Your task to perform on an android device: open app "Adobe Acrobat Reader: Edit PDF" (install if not already installed) and go to login screen Image 0: 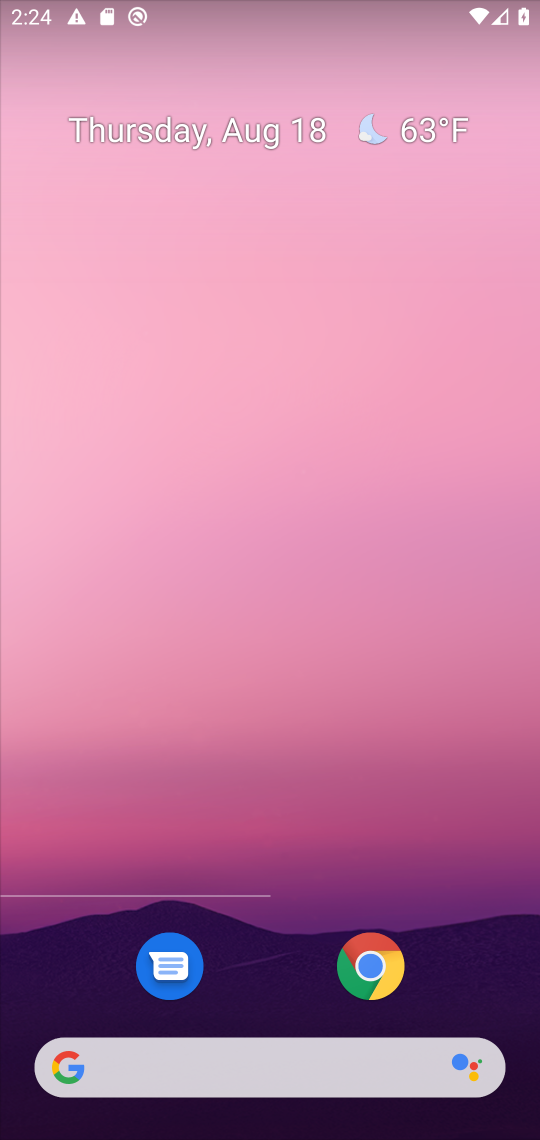
Step 0: press home button
Your task to perform on an android device: open app "Adobe Acrobat Reader: Edit PDF" (install if not already installed) and go to login screen Image 1: 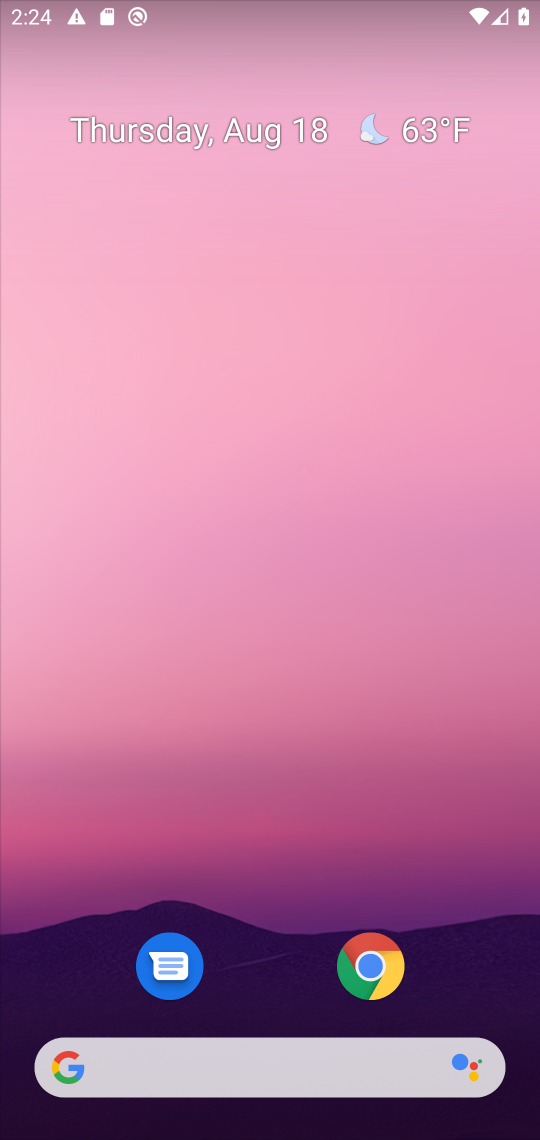
Step 1: drag from (250, 1005) to (361, 203)
Your task to perform on an android device: open app "Adobe Acrobat Reader: Edit PDF" (install if not already installed) and go to login screen Image 2: 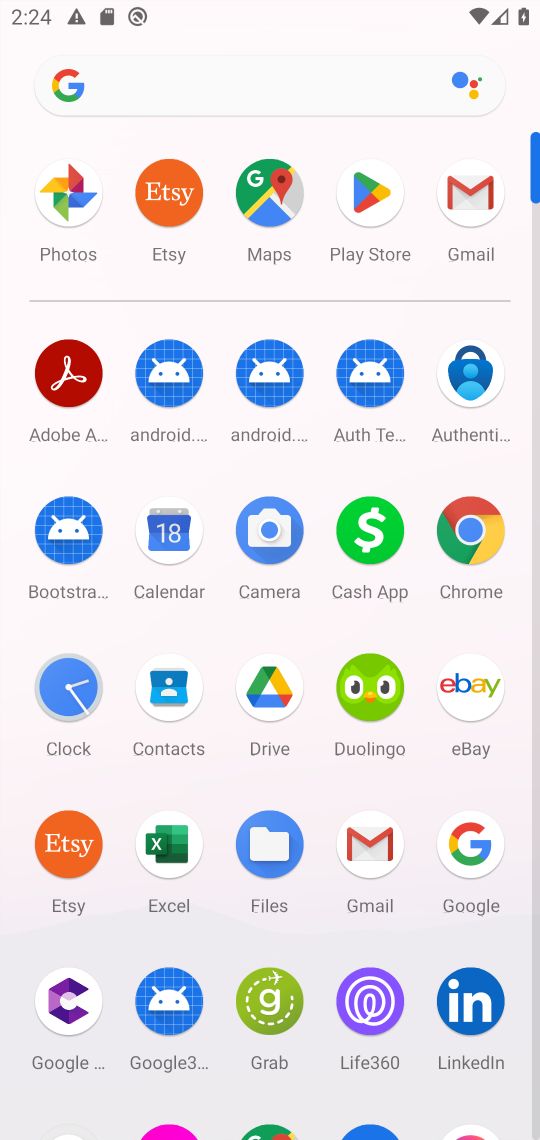
Step 2: click (365, 185)
Your task to perform on an android device: open app "Adobe Acrobat Reader: Edit PDF" (install if not already installed) and go to login screen Image 3: 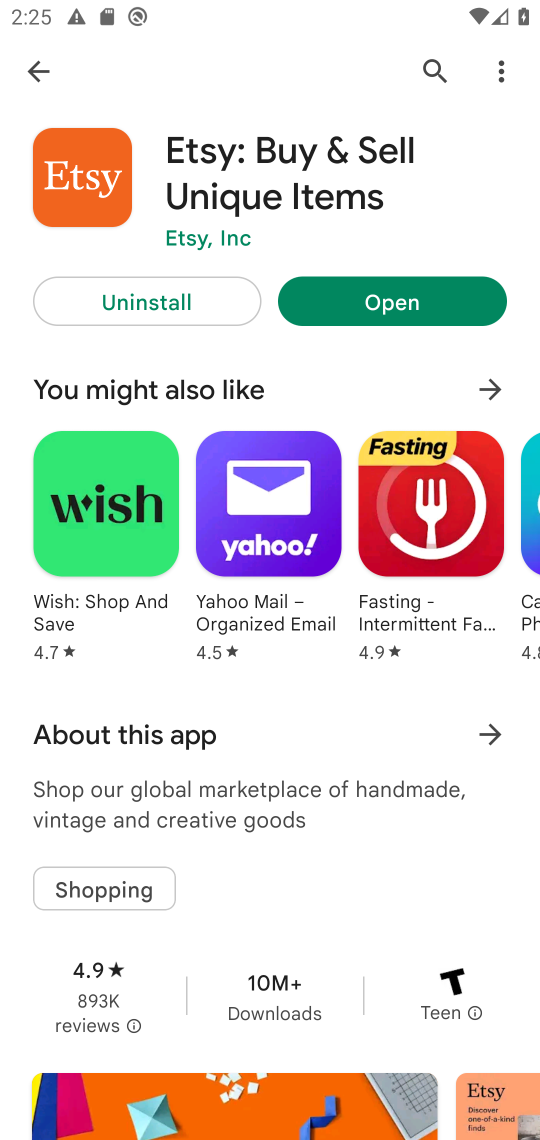
Step 3: type "Adobe Acrobat Reader: Edit PDF"
Your task to perform on an android device: open app "Adobe Acrobat Reader: Edit PDF" (install if not already installed) and go to login screen Image 4: 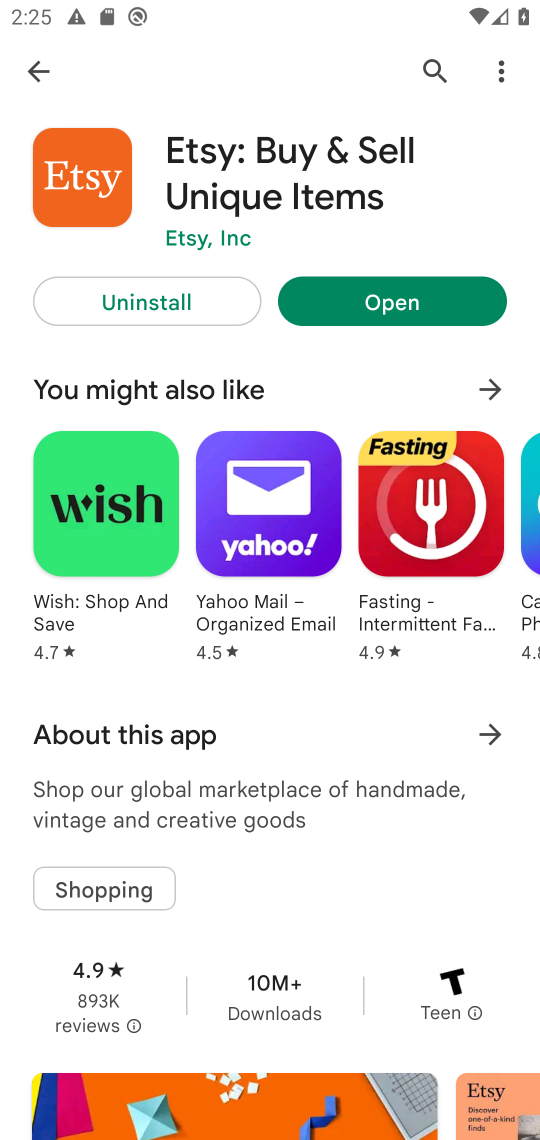
Step 4: type ""
Your task to perform on an android device: open app "Adobe Acrobat Reader: Edit PDF" (install if not already installed) and go to login screen Image 5: 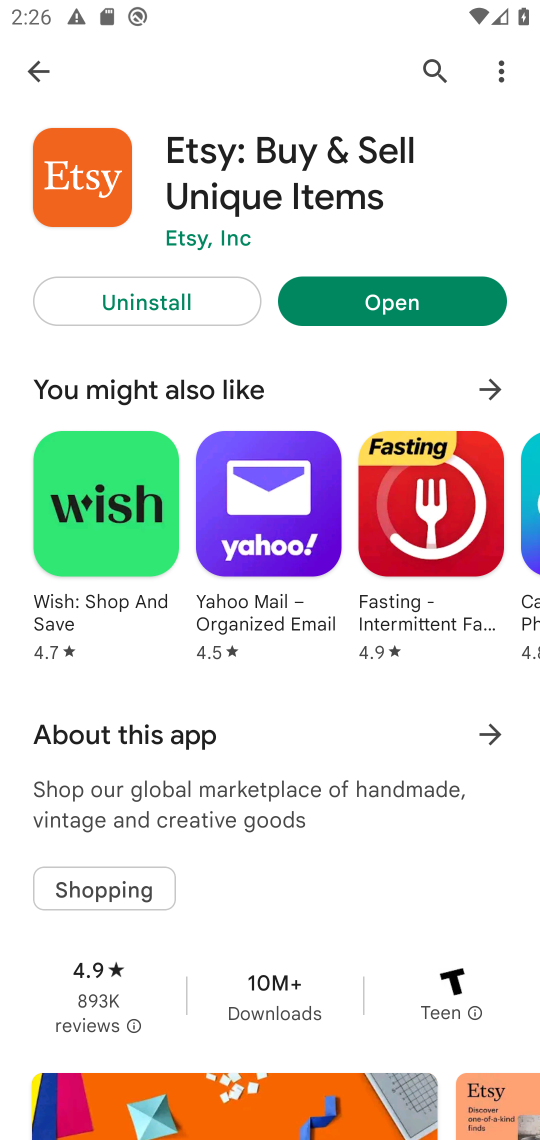
Step 5: click (427, 66)
Your task to perform on an android device: open app "Adobe Acrobat Reader: Edit PDF" (install if not already installed) and go to login screen Image 6: 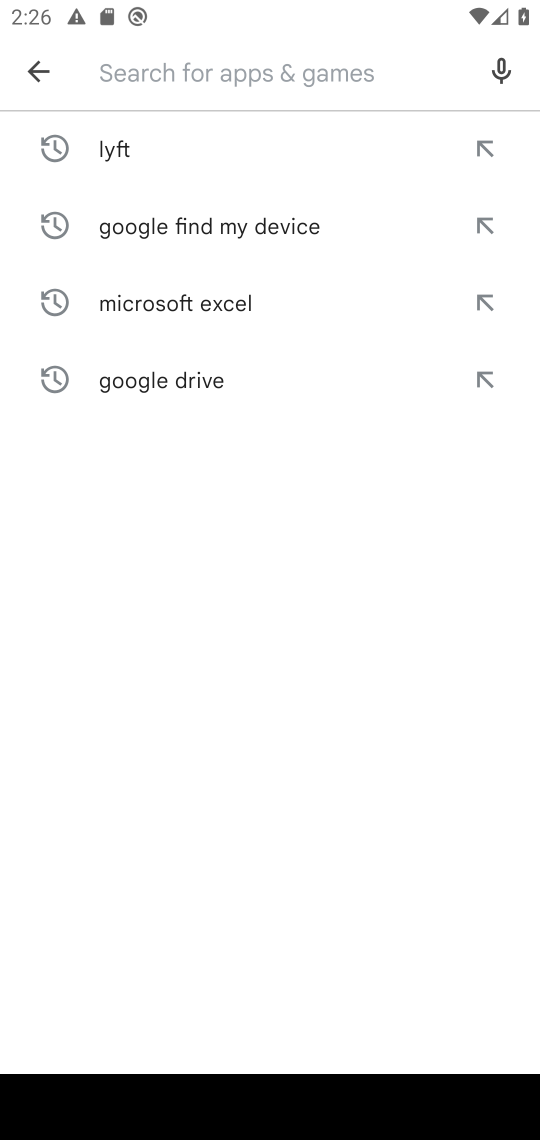
Step 6: type "Adobe Acrobat Reader: Edit PDF"
Your task to perform on an android device: open app "Adobe Acrobat Reader: Edit PDF" (install if not already installed) and go to login screen Image 7: 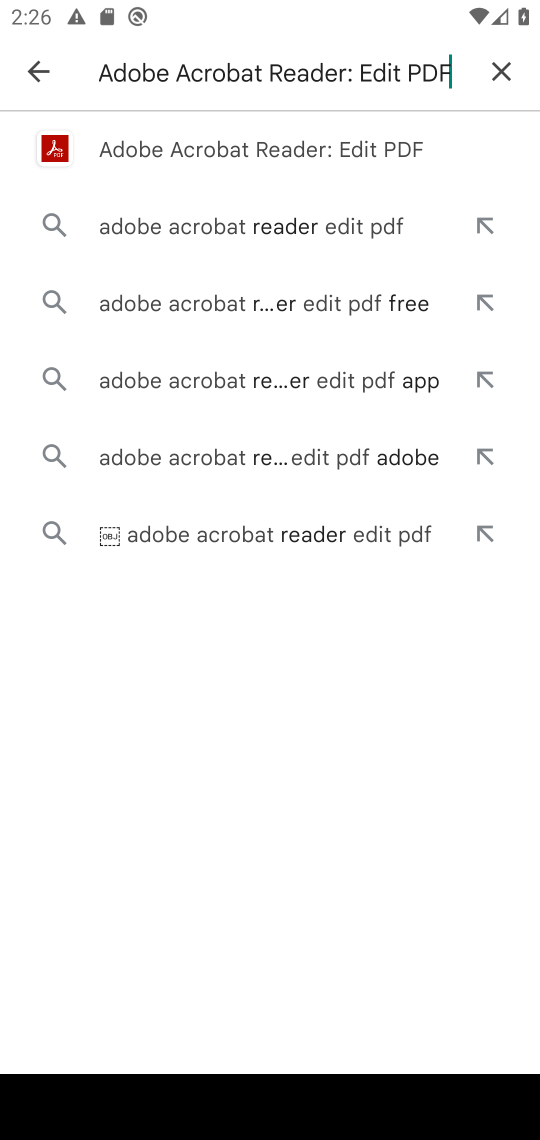
Step 7: click (157, 150)
Your task to perform on an android device: open app "Adobe Acrobat Reader: Edit PDF" (install if not already installed) and go to login screen Image 8: 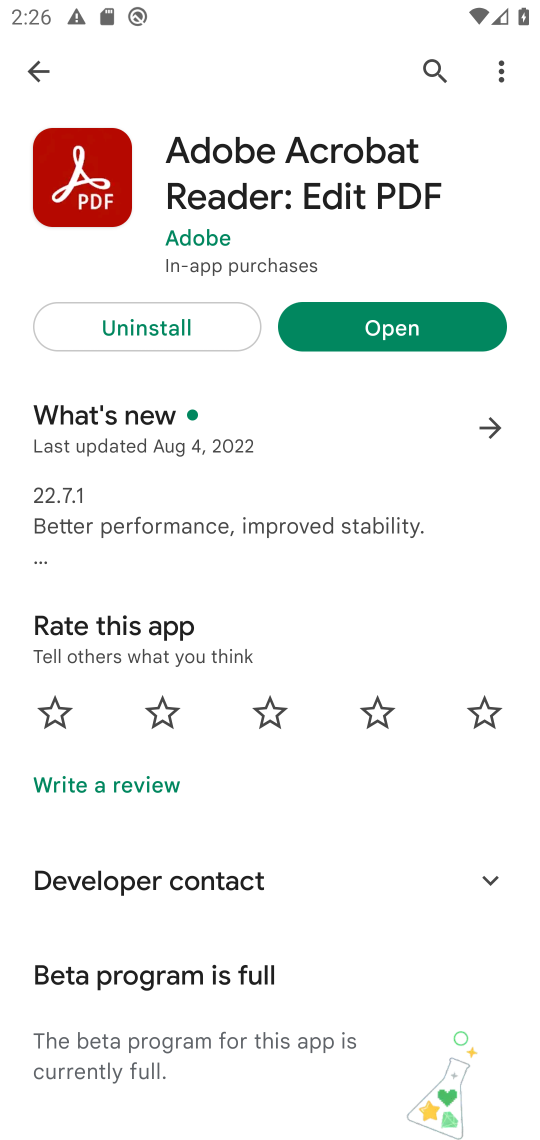
Step 8: click (416, 323)
Your task to perform on an android device: open app "Adobe Acrobat Reader: Edit PDF" (install if not already installed) and go to login screen Image 9: 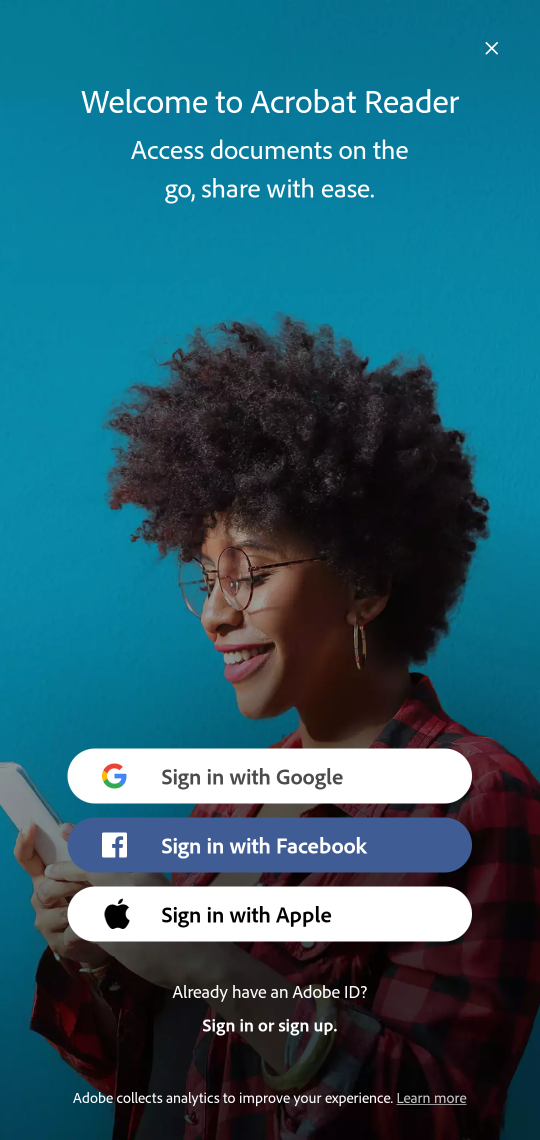
Step 9: click (184, 777)
Your task to perform on an android device: open app "Adobe Acrobat Reader: Edit PDF" (install if not already installed) and go to login screen Image 10: 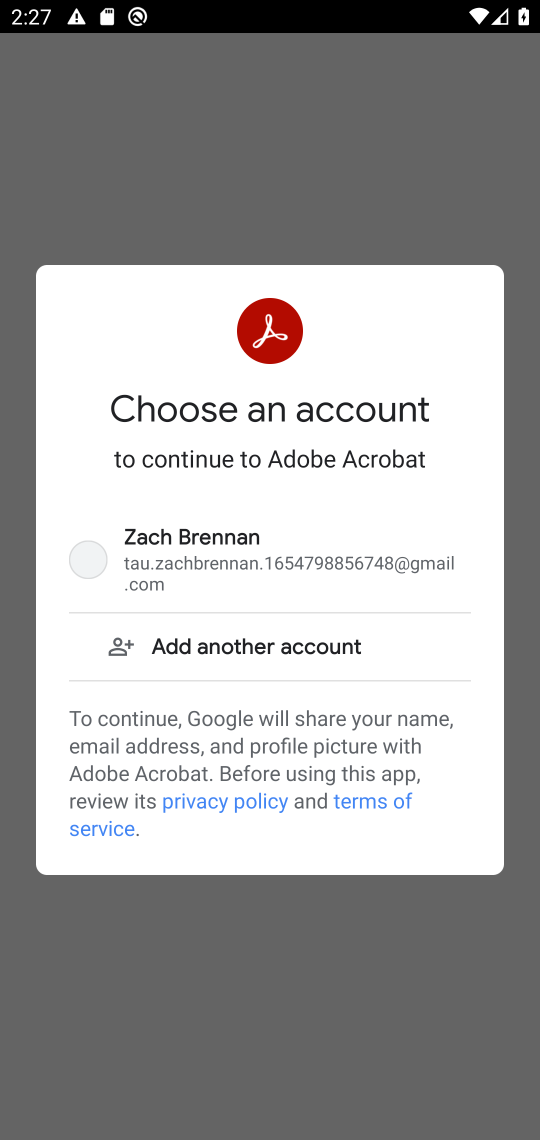
Step 10: click (198, 547)
Your task to perform on an android device: open app "Adobe Acrobat Reader: Edit PDF" (install if not already installed) and go to login screen Image 11: 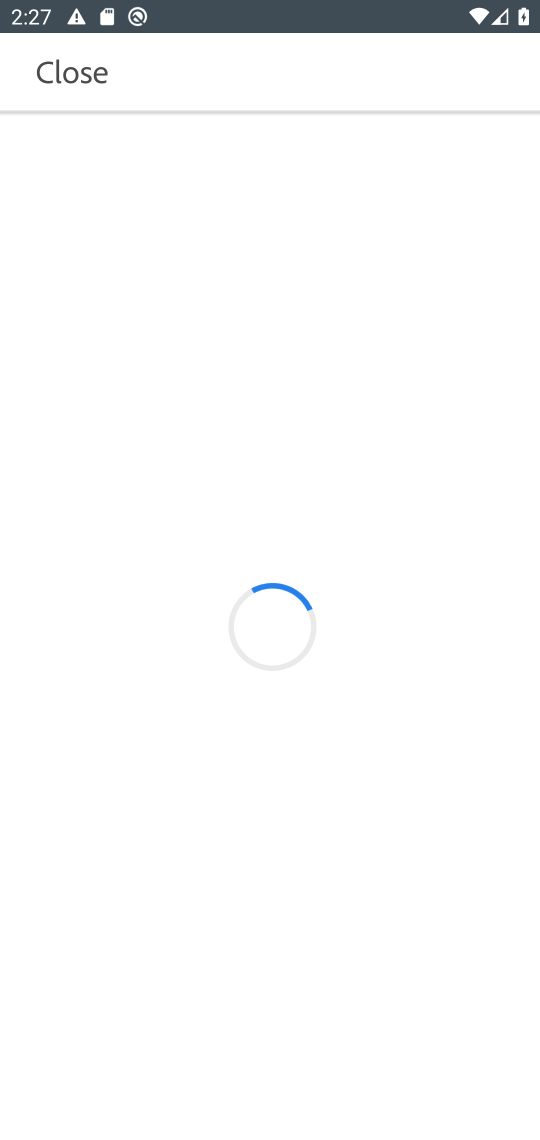
Step 11: click (66, 74)
Your task to perform on an android device: open app "Adobe Acrobat Reader: Edit PDF" (install if not already installed) and go to login screen Image 12: 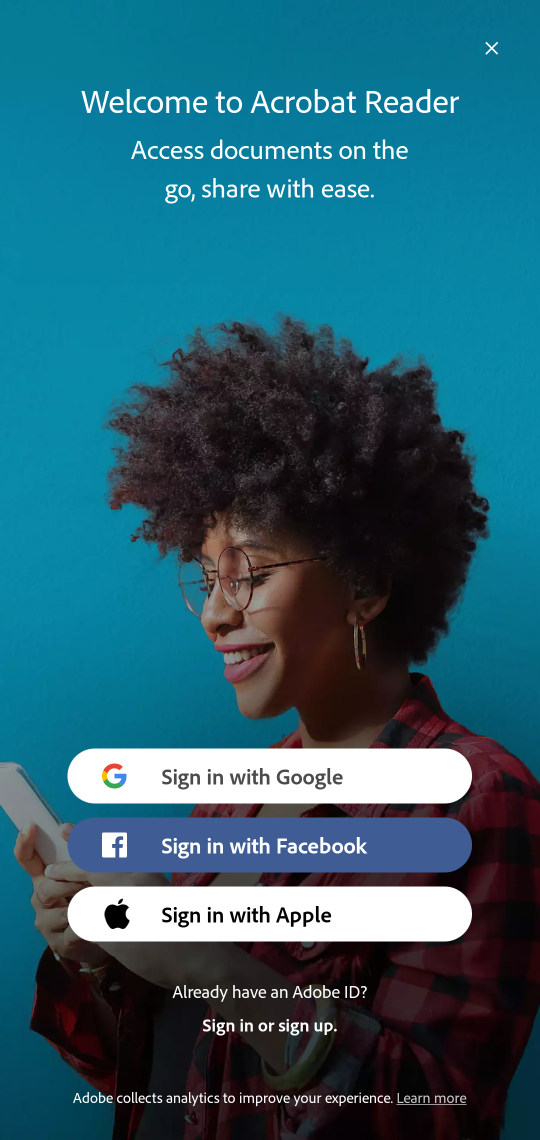
Step 12: click (290, 771)
Your task to perform on an android device: open app "Adobe Acrobat Reader: Edit PDF" (install if not already installed) and go to login screen Image 13: 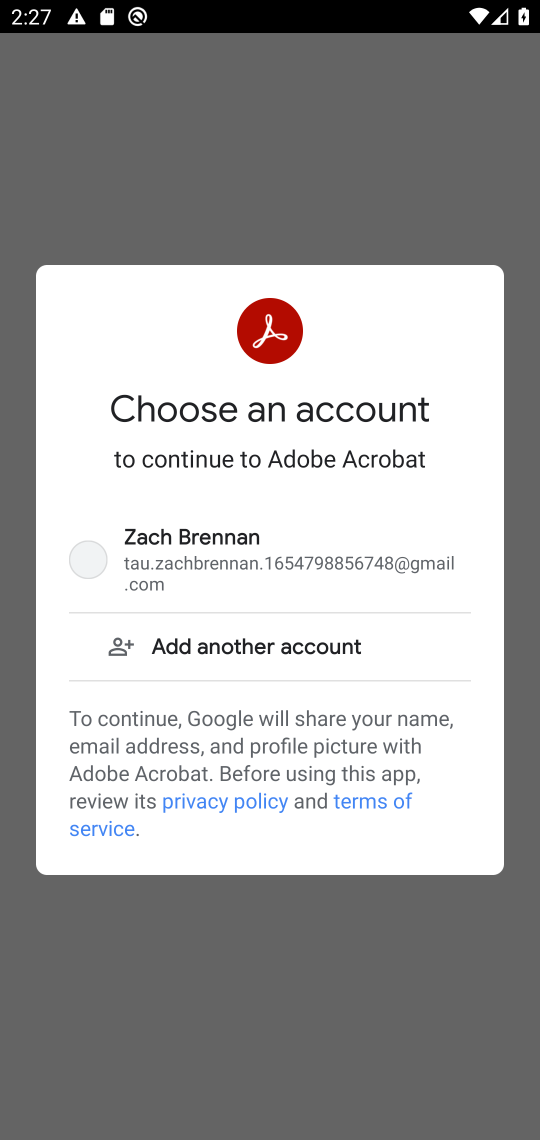
Step 13: click (194, 541)
Your task to perform on an android device: open app "Adobe Acrobat Reader: Edit PDF" (install if not already installed) and go to login screen Image 14: 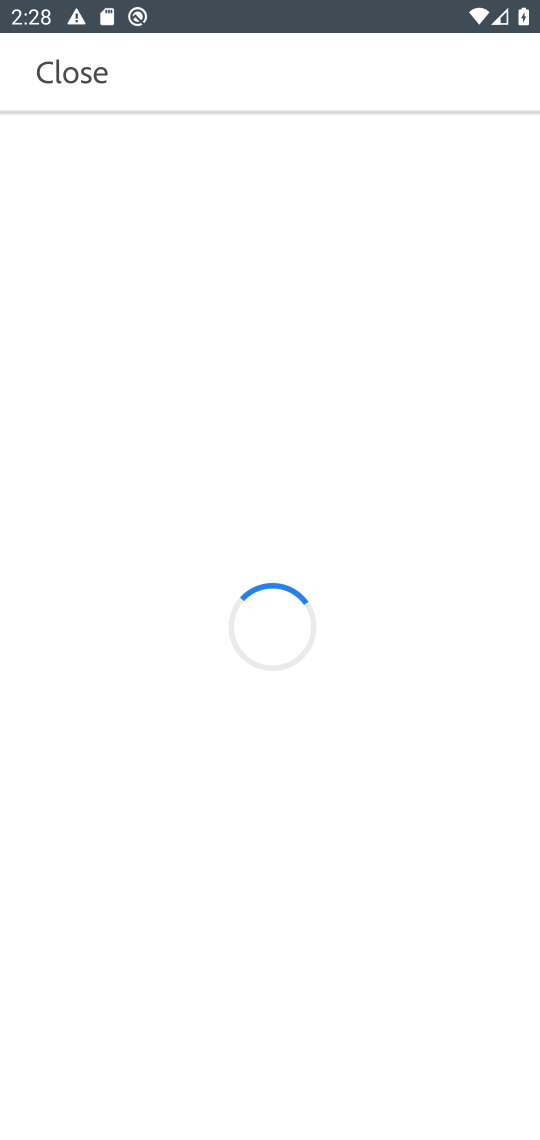
Step 14: task complete